Your task to perform on an android device: see creations saved in the google photos Image 0: 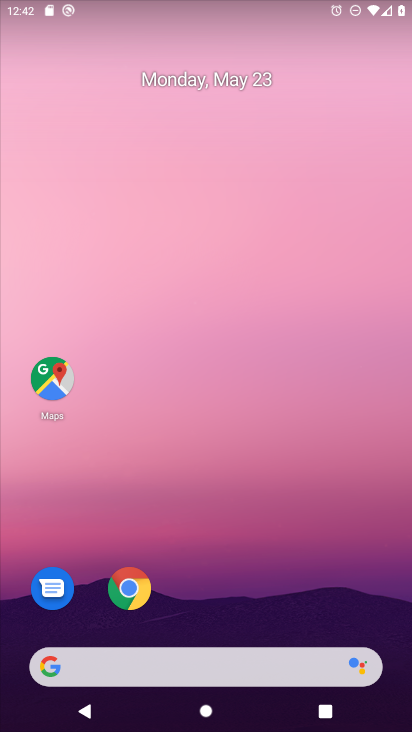
Step 0: drag from (300, 685) to (299, 135)
Your task to perform on an android device: see creations saved in the google photos Image 1: 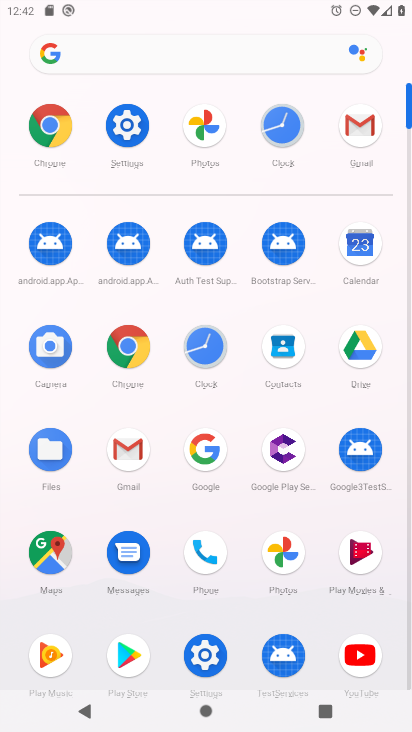
Step 1: click (264, 547)
Your task to perform on an android device: see creations saved in the google photos Image 2: 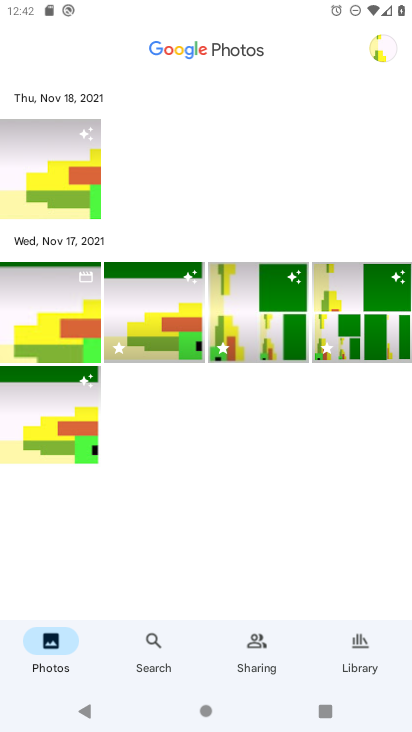
Step 2: click (242, 322)
Your task to perform on an android device: see creations saved in the google photos Image 3: 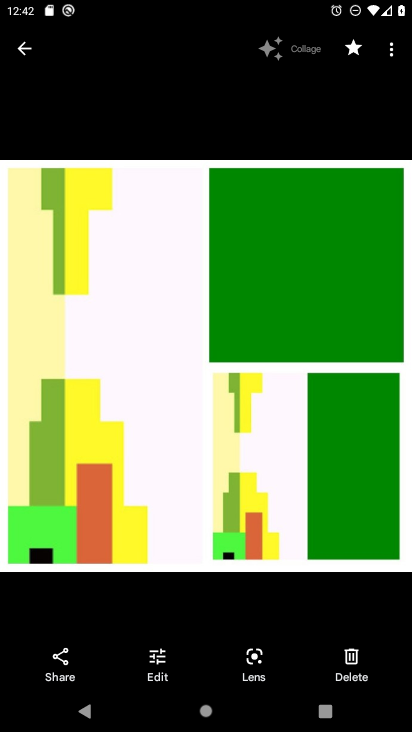
Step 3: click (393, 65)
Your task to perform on an android device: see creations saved in the google photos Image 4: 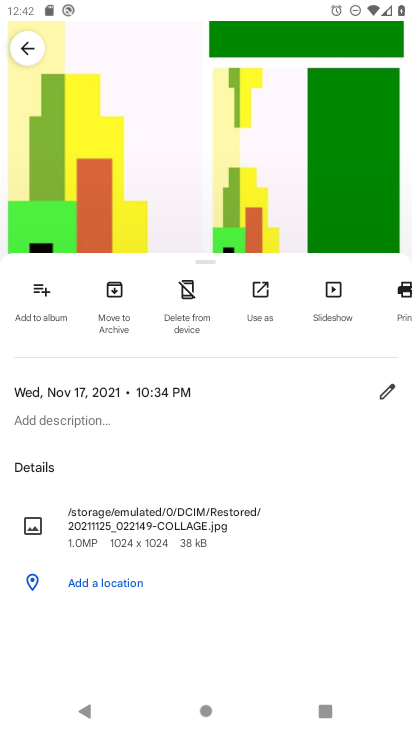
Step 4: task complete